Your task to perform on an android device: refresh tabs in the chrome app Image 0: 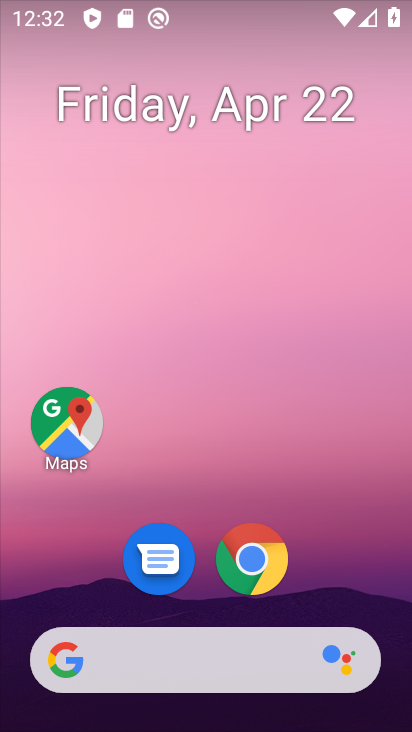
Step 0: drag from (382, 609) to (269, 77)
Your task to perform on an android device: refresh tabs in the chrome app Image 1: 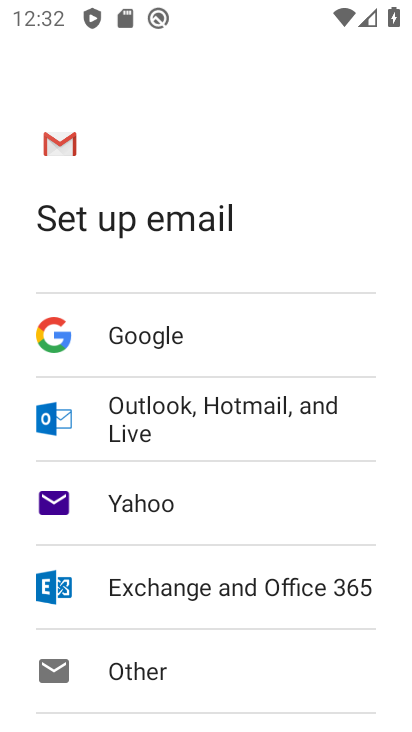
Step 1: press home button
Your task to perform on an android device: refresh tabs in the chrome app Image 2: 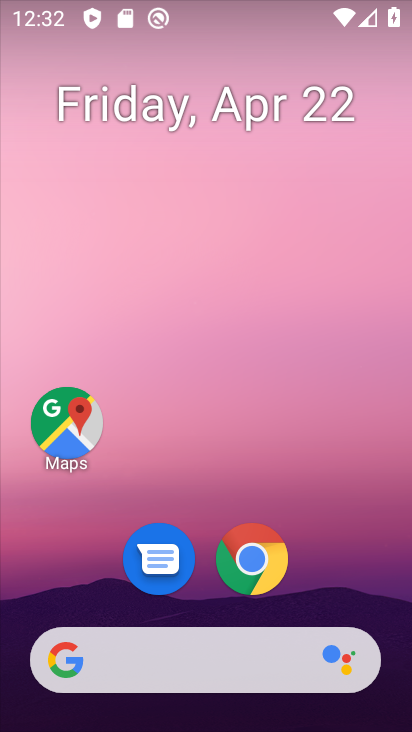
Step 2: drag from (343, 563) to (271, 73)
Your task to perform on an android device: refresh tabs in the chrome app Image 3: 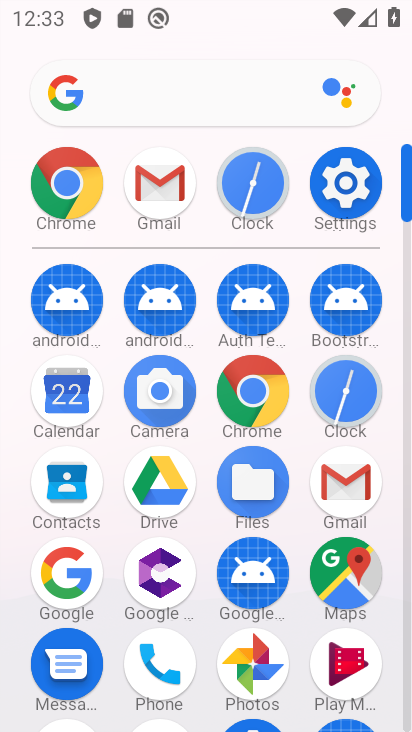
Step 3: click (242, 402)
Your task to perform on an android device: refresh tabs in the chrome app Image 4: 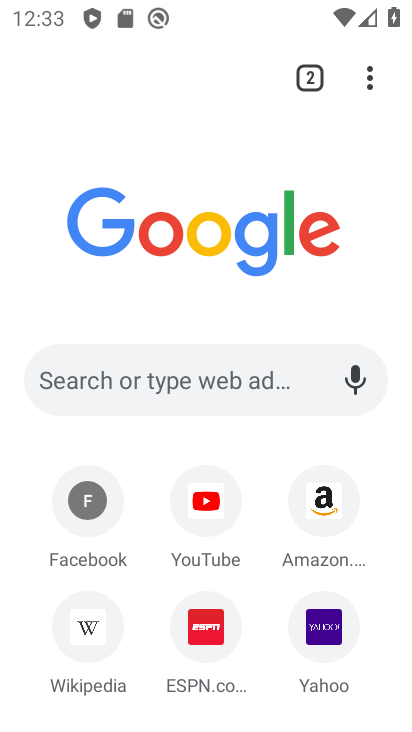
Step 4: click (365, 76)
Your task to perform on an android device: refresh tabs in the chrome app Image 5: 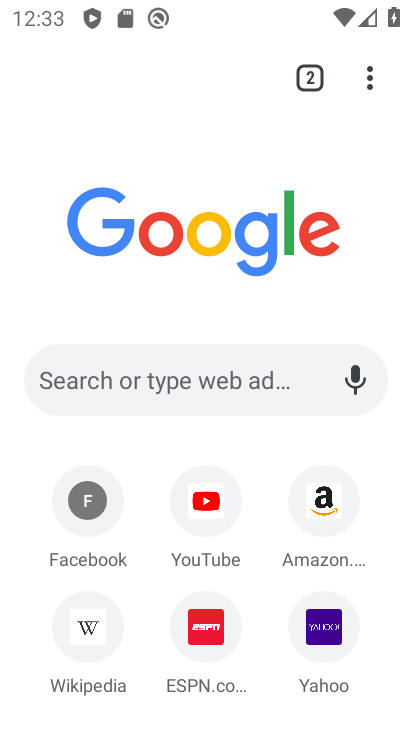
Step 5: click (365, 76)
Your task to perform on an android device: refresh tabs in the chrome app Image 6: 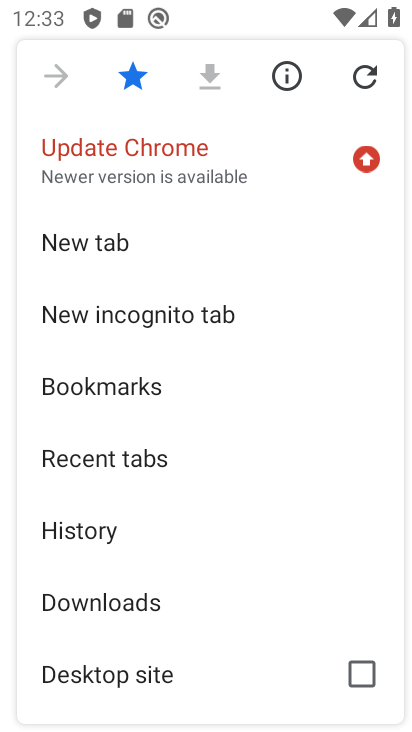
Step 6: click (365, 76)
Your task to perform on an android device: refresh tabs in the chrome app Image 7: 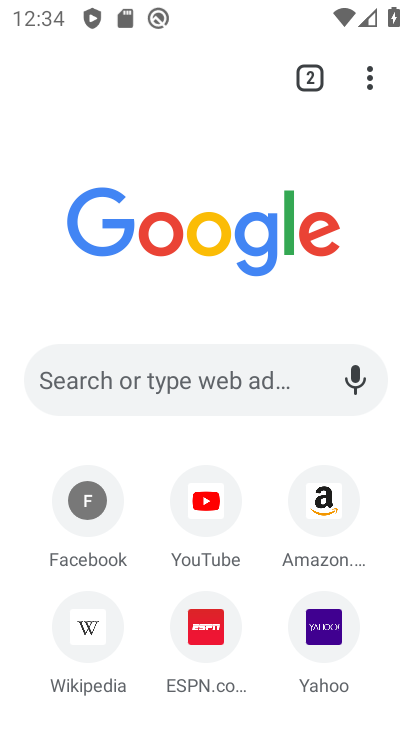
Step 7: task complete